Your task to perform on an android device: change notifications settings Image 0: 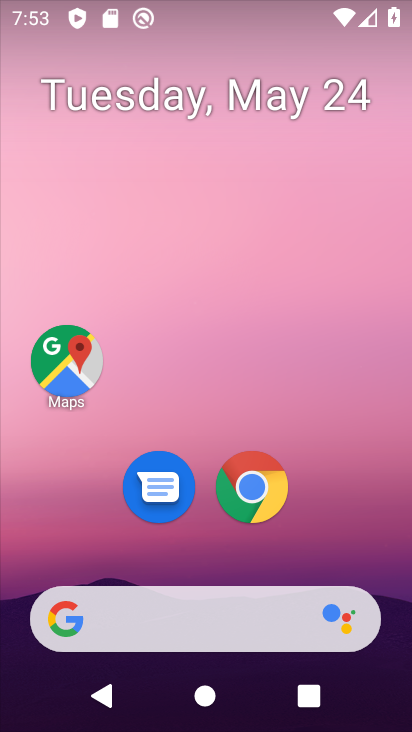
Step 0: drag from (37, 445) to (149, 218)
Your task to perform on an android device: change notifications settings Image 1: 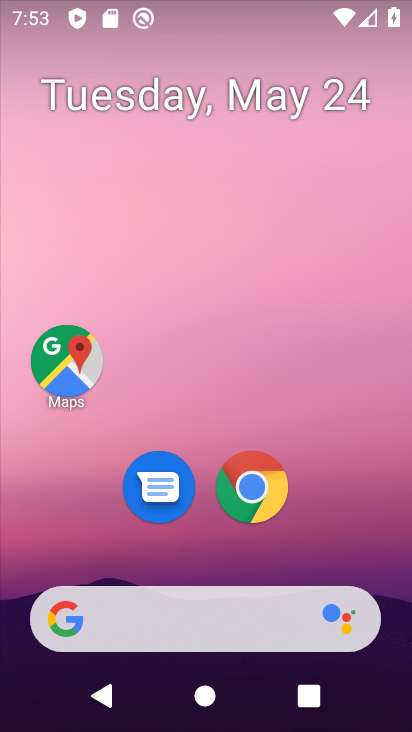
Step 1: press home button
Your task to perform on an android device: change notifications settings Image 2: 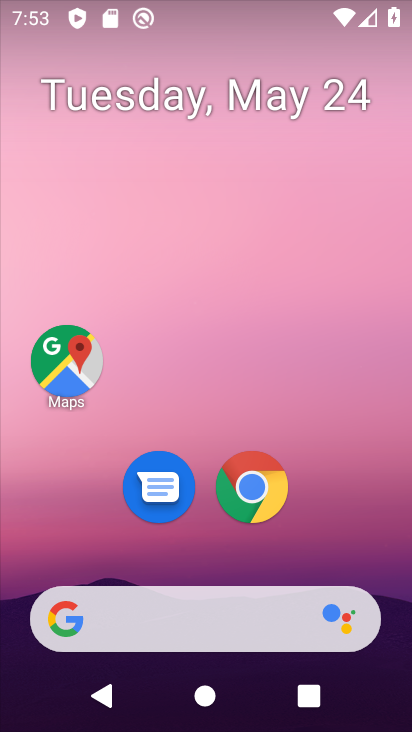
Step 2: drag from (17, 607) to (246, 89)
Your task to perform on an android device: change notifications settings Image 3: 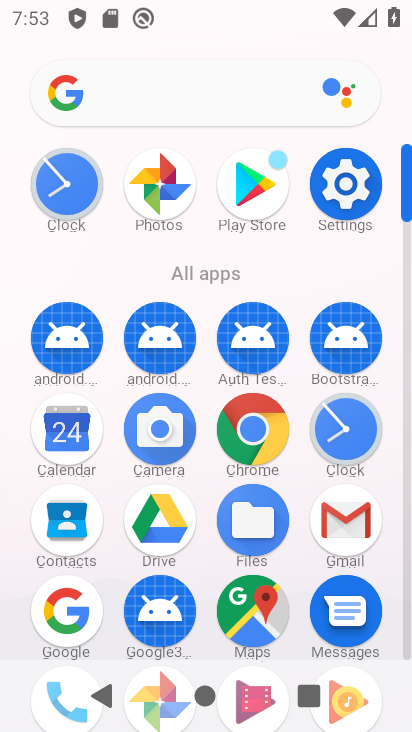
Step 3: click (337, 187)
Your task to perform on an android device: change notifications settings Image 4: 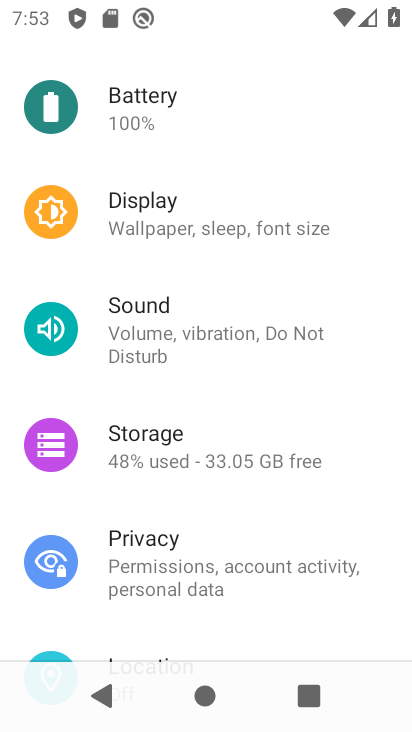
Step 4: drag from (30, 113) to (0, 638)
Your task to perform on an android device: change notifications settings Image 5: 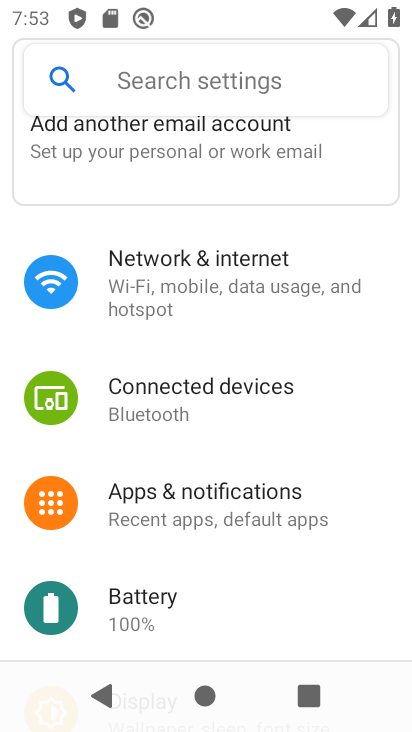
Step 5: click (154, 531)
Your task to perform on an android device: change notifications settings Image 6: 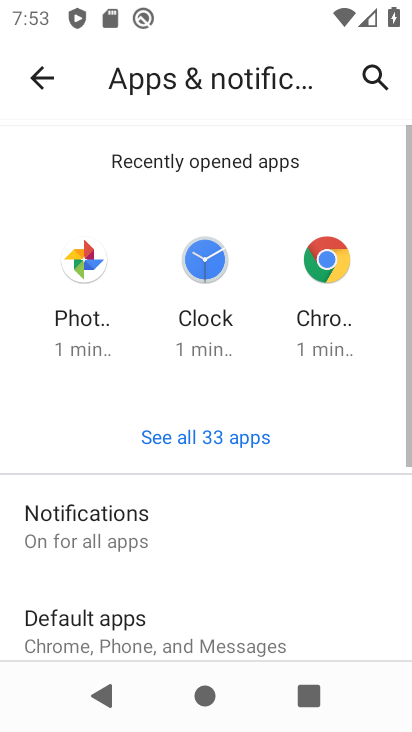
Step 6: click (143, 528)
Your task to perform on an android device: change notifications settings Image 7: 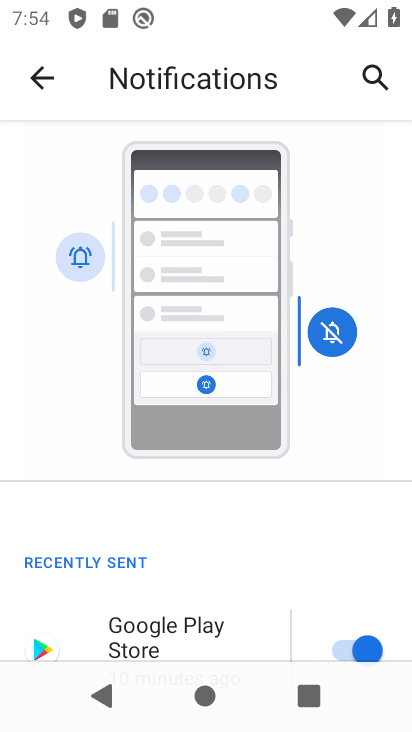
Step 7: task complete